Your task to perform on an android device: What is the news today? Image 0: 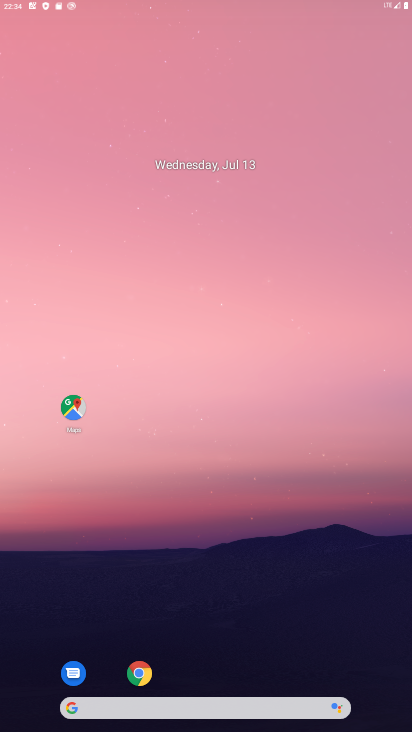
Step 0: drag from (208, 552) to (244, 139)
Your task to perform on an android device: What is the news today? Image 1: 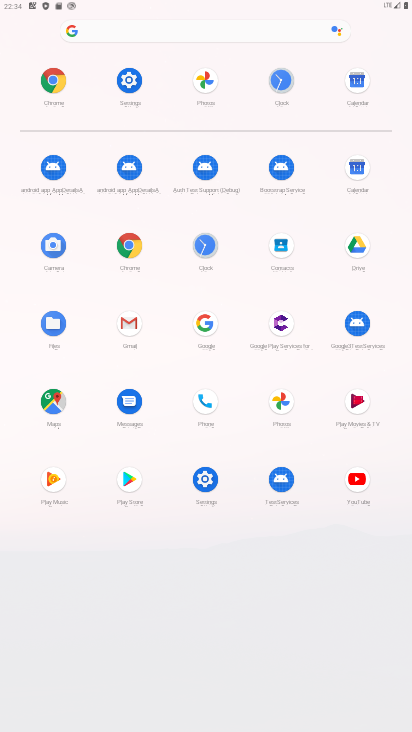
Step 1: drag from (165, 395) to (174, 88)
Your task to perform on an android device: What is the news today? Image 2: 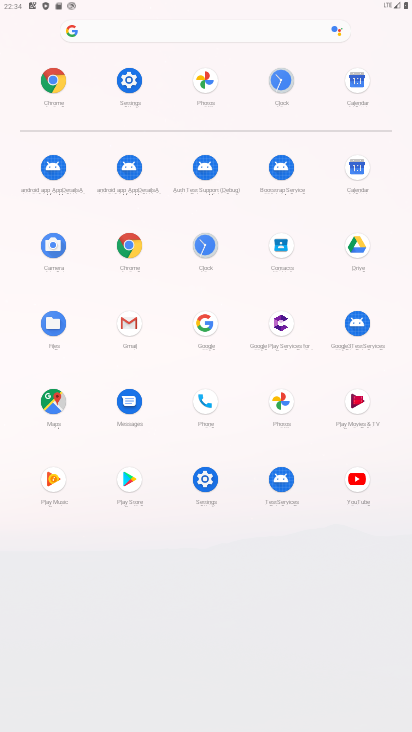
Step 2: click (132, 24)
Your task to perform on an android device: What is the news today? Image 3: 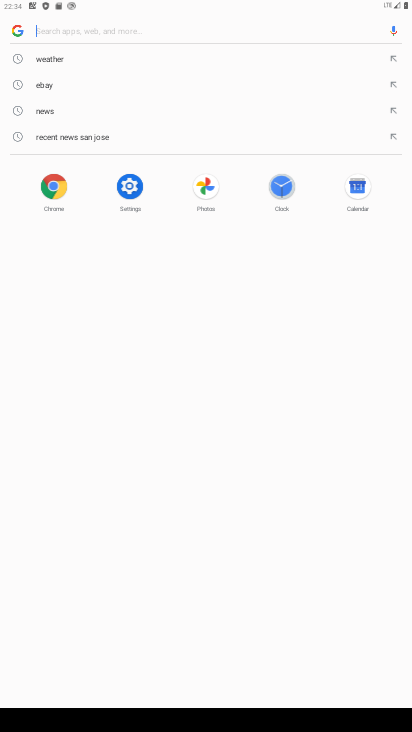
Step 3: click (51, 110)
Your task to perform on an android device: What is the news today? Image 4: 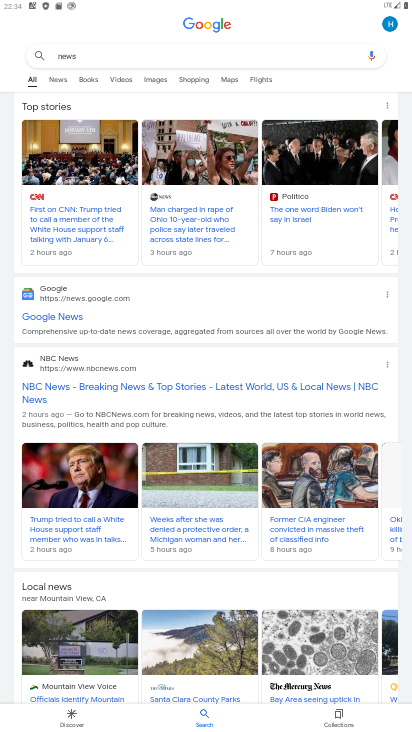
Step 4: drag from (218, 521) to (238, 286)
Your task to perform on an android device: What is the news today? Image 5: 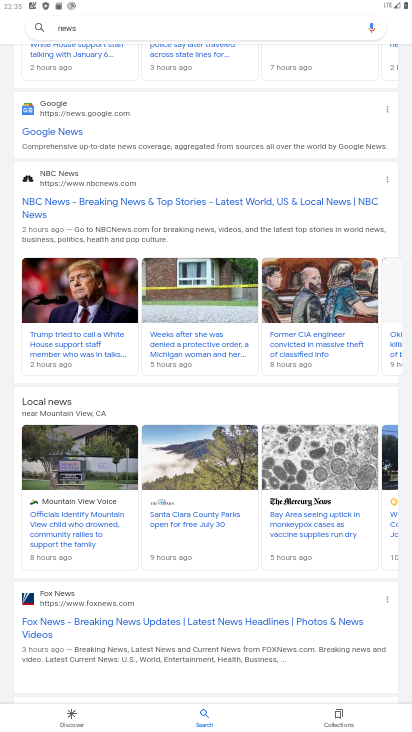
Step 5: drag from (242, 290) to (329, 713)
Your task to perform on an android device: What is the news today? Image 6: 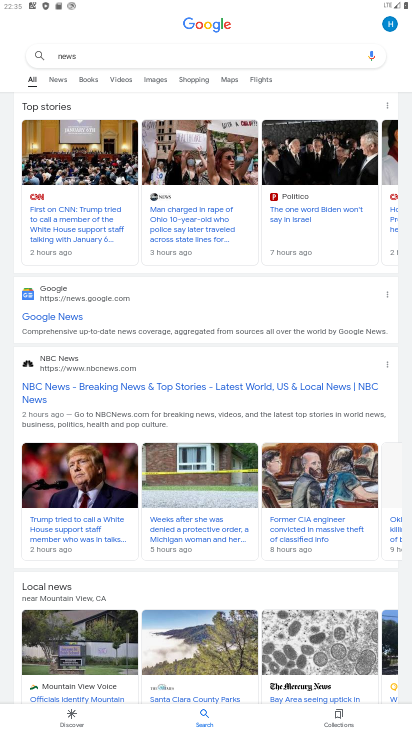
Step 6: click (368, 251)
Your task to perform on an android device: What is the news today? Image 7: 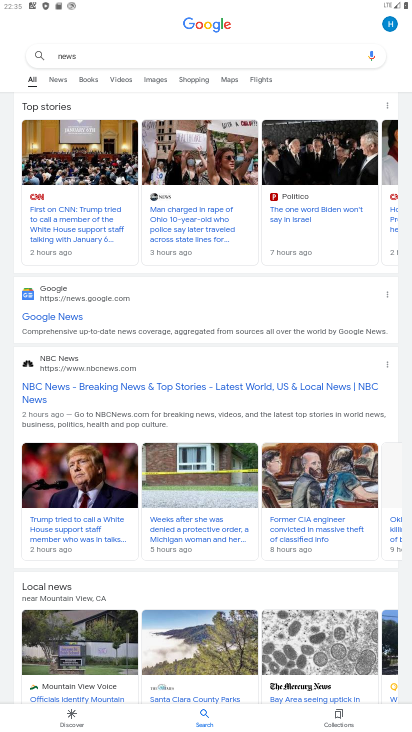
Step 7: task complete